Your task to perform on an android device: show emergency info Image 0: 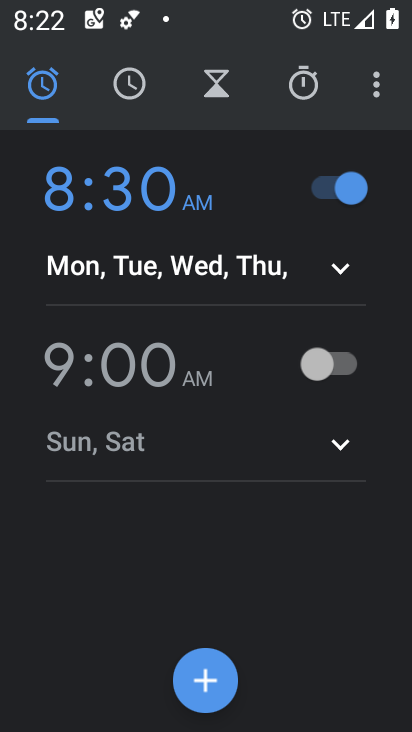
Step 0: press home button
Your task to perform on an android device: show emergency info Image 1: 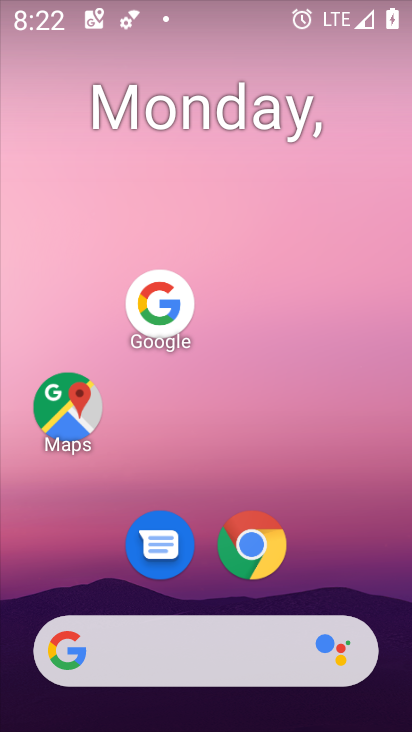
Step 1: drag from (216, 660) to (343, 24)
Your task to perform on an android device: show emergency info Image 2: 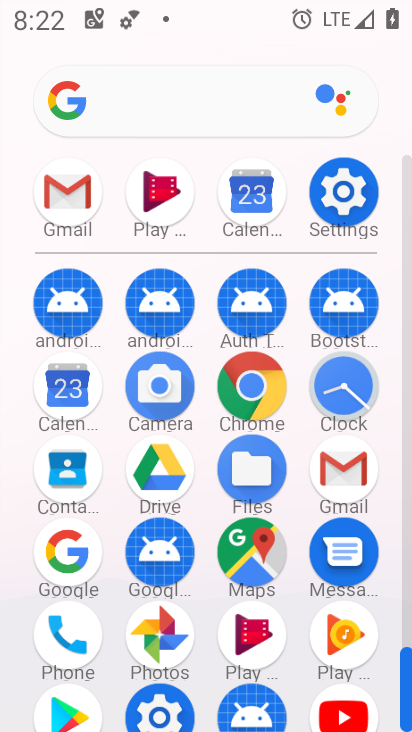
Step 2: click (359, 206)
Your task to perform on an android device: show emergency info Image 3: 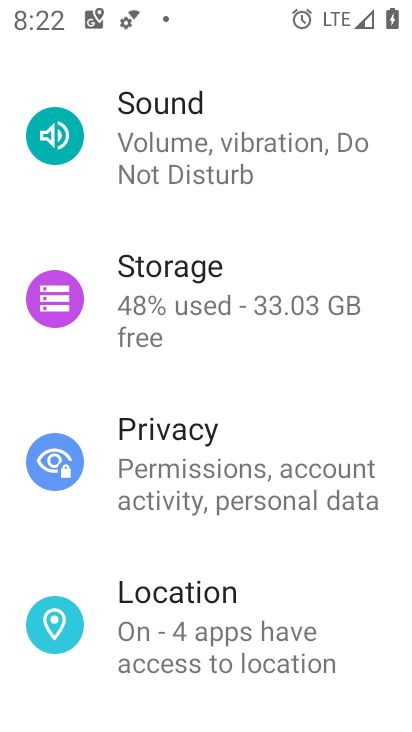
Step 3: drag from (244, 553) to (374, 57)
Your task to perform on an android device: show emergency info Image 4: 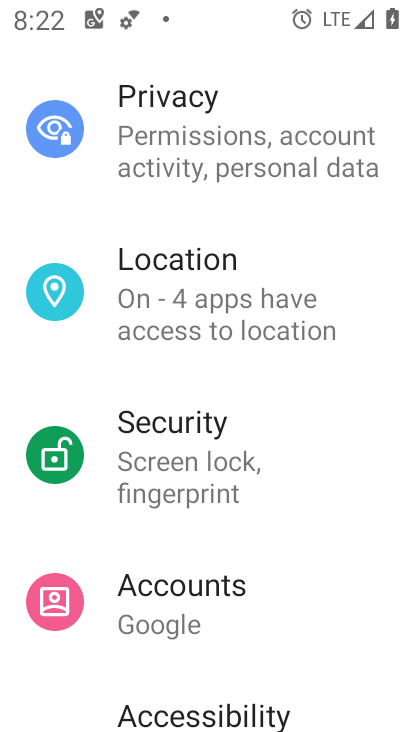
Step 4: drag from (245, 616) to (345, 92)
Your task to perform on an android device: show emergency info Image 5: 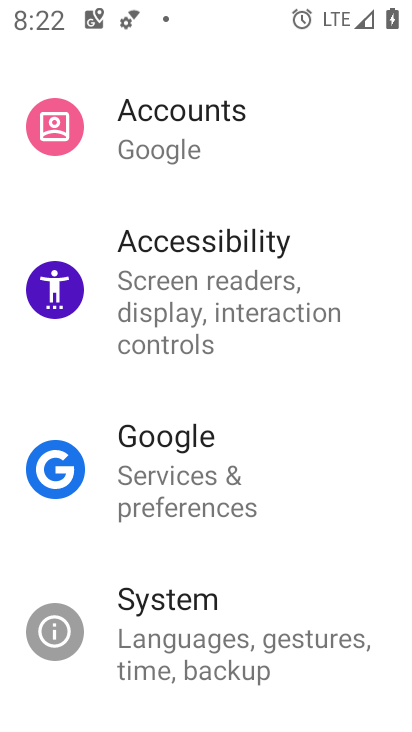
Step 5: drag from (243, 568) to (334, 130)
Your task to perform on an android device: show emergency info Image 6: 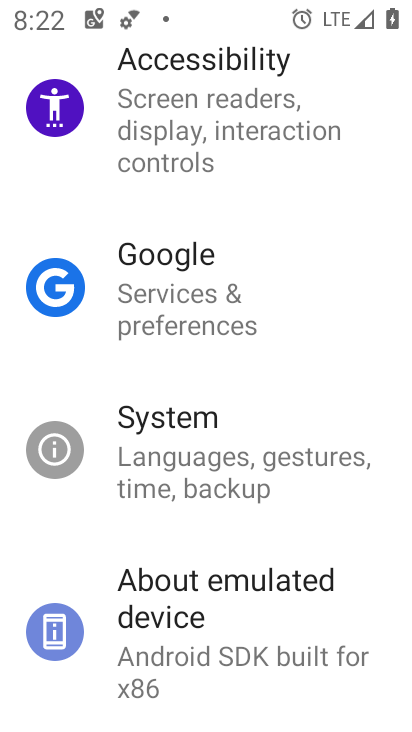
Step 6: click (200, 625)
Your task to perform on an android device: show emergency info Image 7: 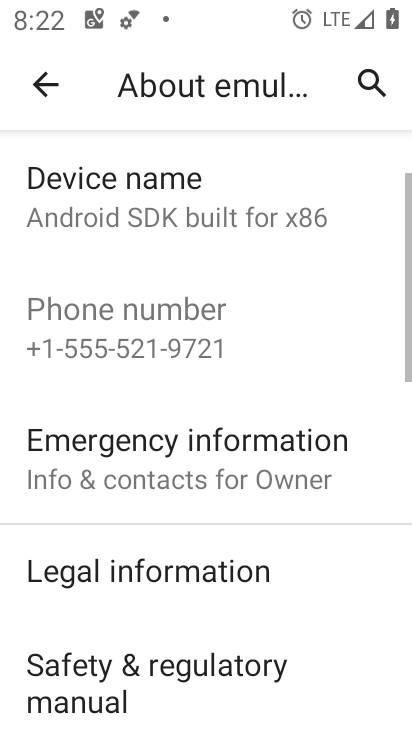
Step 7: click (228, 445)
Your task to perform on an android device: show emergency info Image 8: 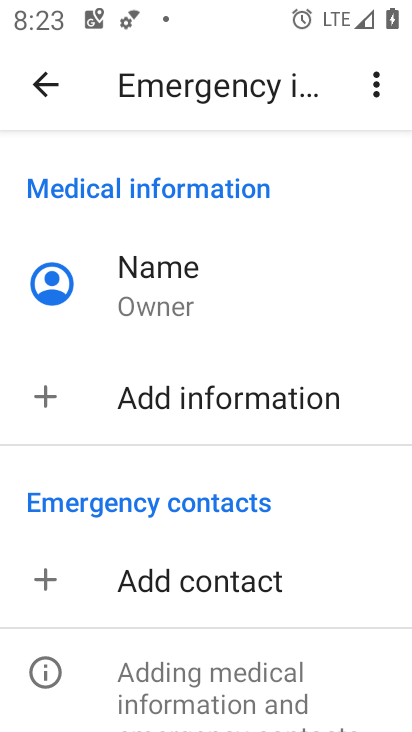
Step 8: task complete